Your task to perform on an android device: set the stopwatch Image 0: 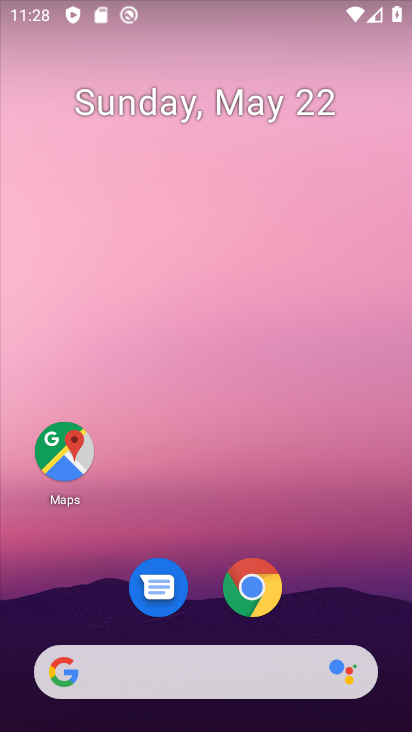
Step 0: drag from (191, 636) to (47, 37)
Your task to perform on an android device: set the stopwatch Image 1: 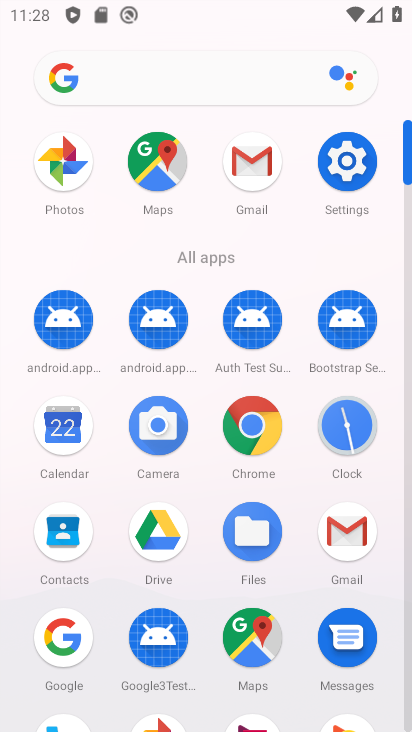
Step 1: click (330, 442)
Your task to perform on an android device: set the stopwatch Image 2: 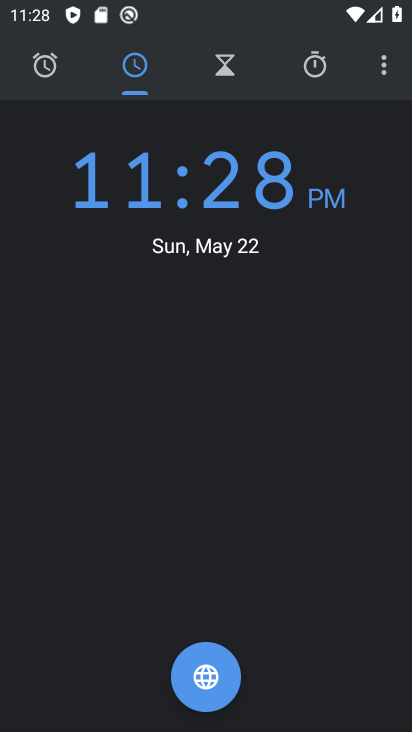
Step 2: click (305, 95)
Your task to perform on an android device: set the stopwatch Image 3: 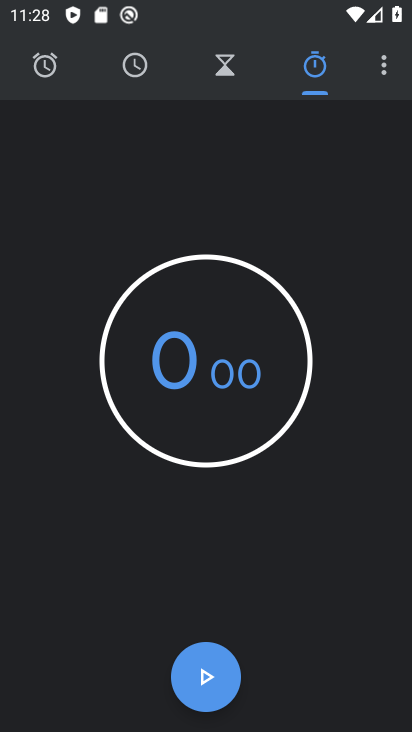
Step 3: task complete